Your task to perform on an android device: Open wifi settings Image 0: 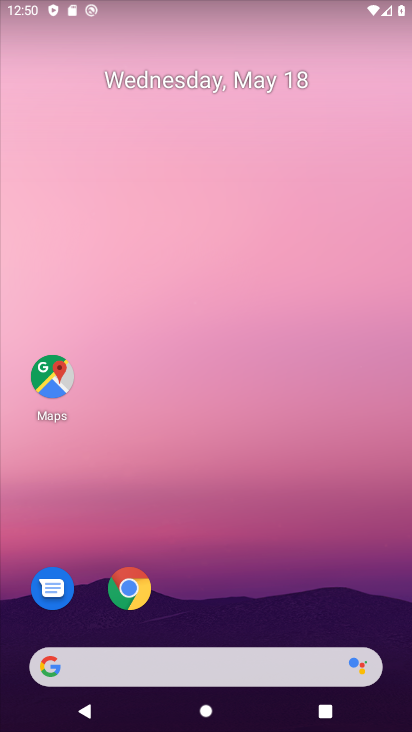
Step 0: drag from (312, 579) to (318, 101)
Your task to perform on an android device: Open wifi settings Image 1: 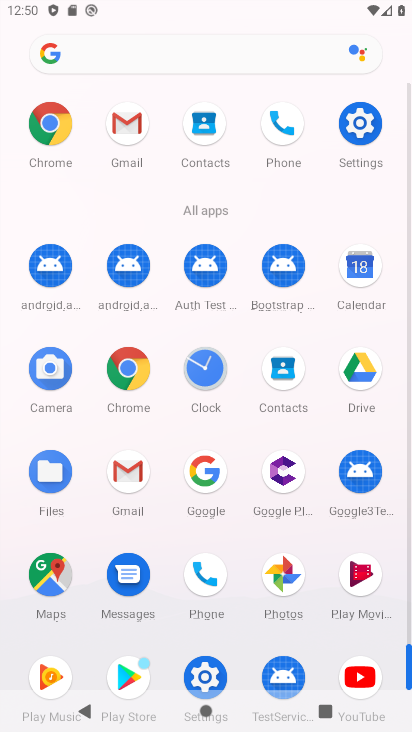
Step 1: click (360, 138)
Your task to perform on an android device: Open wifi settings Image 2: 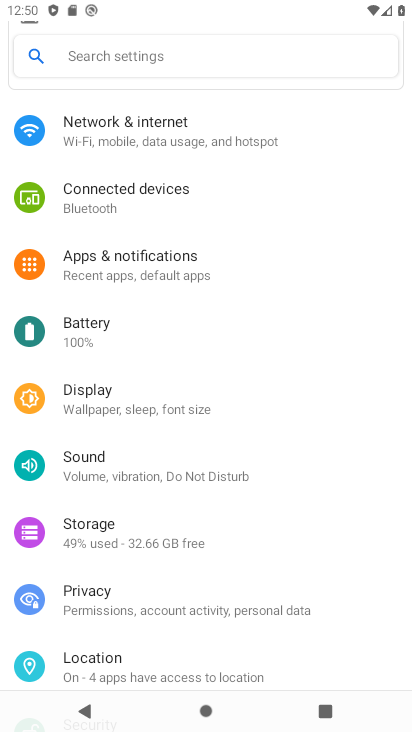
Step 2: drag from (347, 255) to (345, 458)
Your task to perform on an android device: Open wifi settings Image 3: 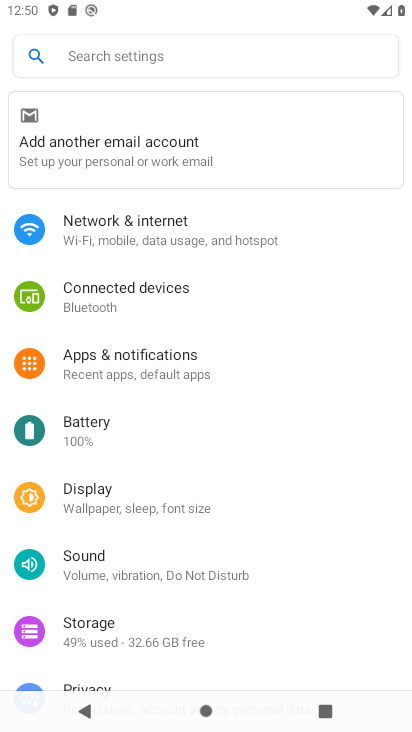
Step 3: drag from (345, 534) to (349, 302)
Your task to perform on an android device: Open wifi settings Image 4: 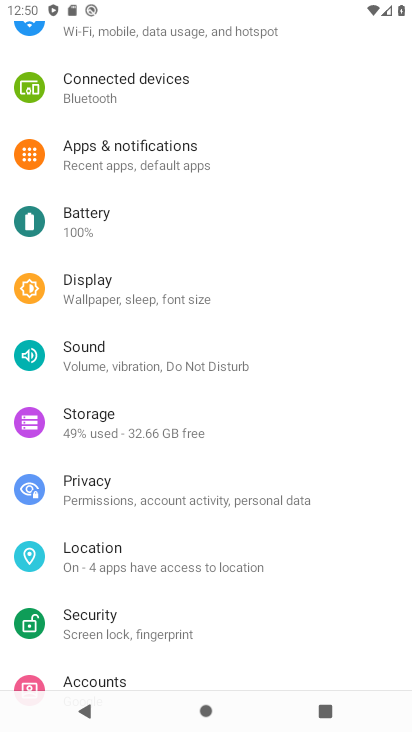
Step 4: drag from (340, 587) to (349, 301)
Your task to perform on an android device: Open wifi settings Image 5: 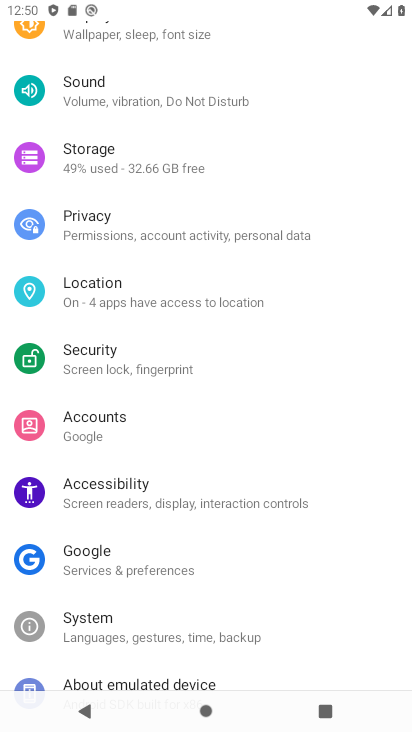
Step 5: drag from (329, 568) to (340, 309)
Your task to perform on an android device: Open wifi settings Image 6: 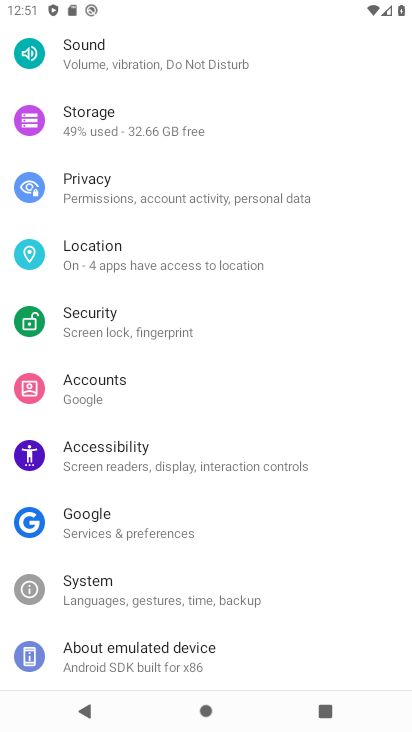
Step 6: drag from (335, 300) to (333, 519)
Your task to perform on an android device: Open wifi settings Image 7: 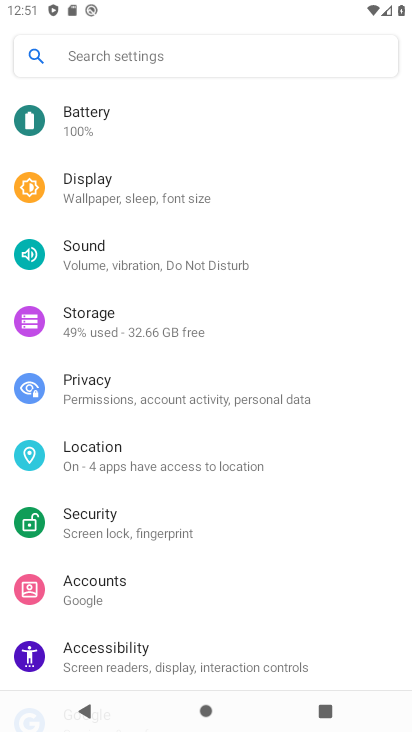
Step 7: drag from (329, 238) to (329, 473)
Your task to perform on an android device: Open wifi settings Image 8: 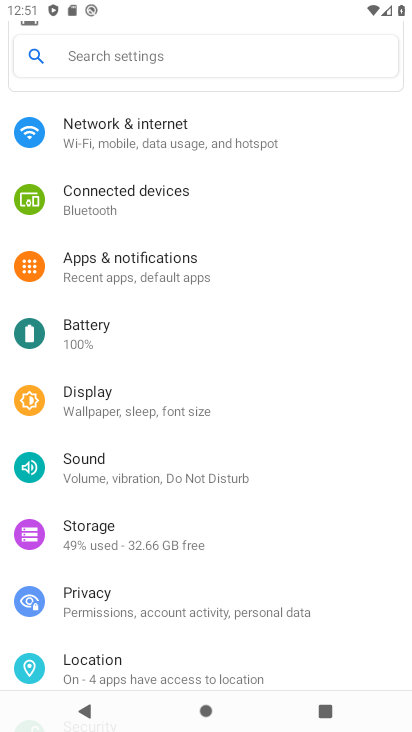
Step 8: drag from (334, 215) to (340, 426)
Your task to perform on an android device: Open wifi settings Image 9: 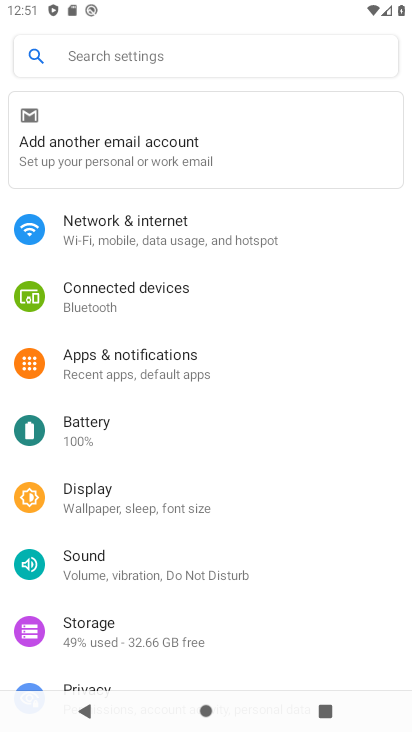
Step 9: drag from (322, 191) to (320, 394)
Your task to perform on an android device: Open wifi settings Image 10: 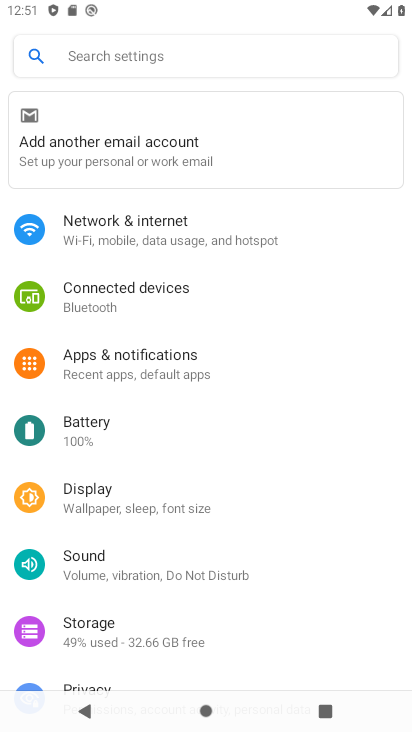
Step 10: click (203, 228)
Your task to perform on an android device: Open wifi settings Image 11: 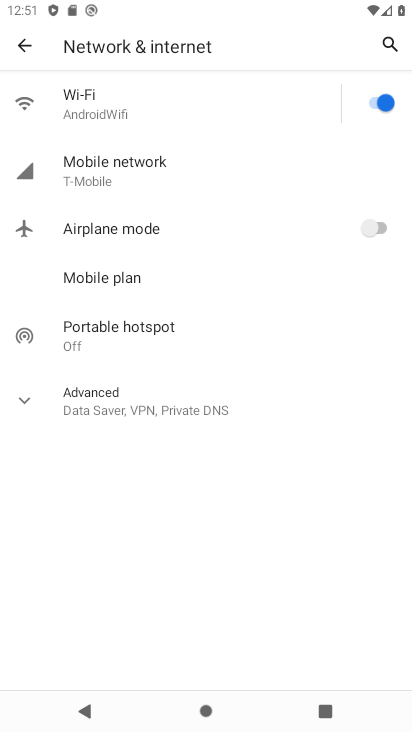
Step 11: click (120, 97)
Your task to perform on an android device: Open wifi settings Image 12: 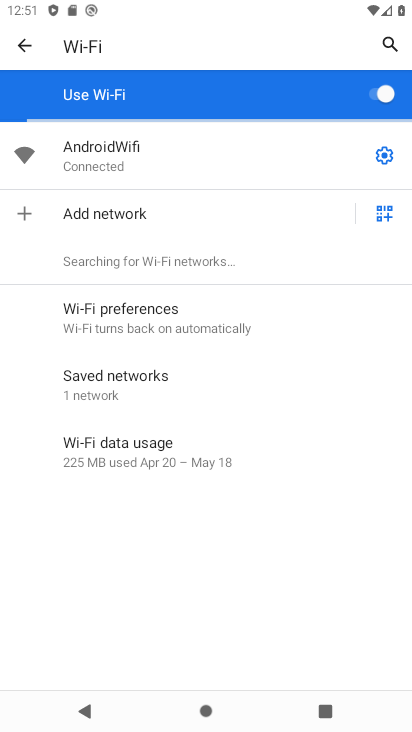
Step 12: task complete